Your task to perform on an android device: Go to privacy settings Image 0: 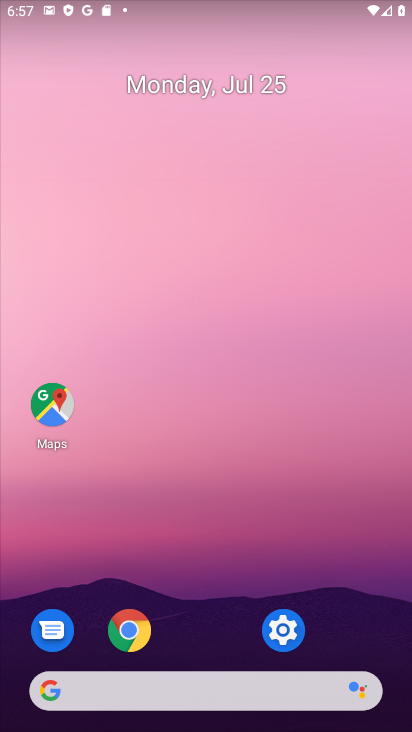
Step 0: drag from (354, 199) to (207, 168)
Your task to perform on an android device: Go to privacy settings Image 1: 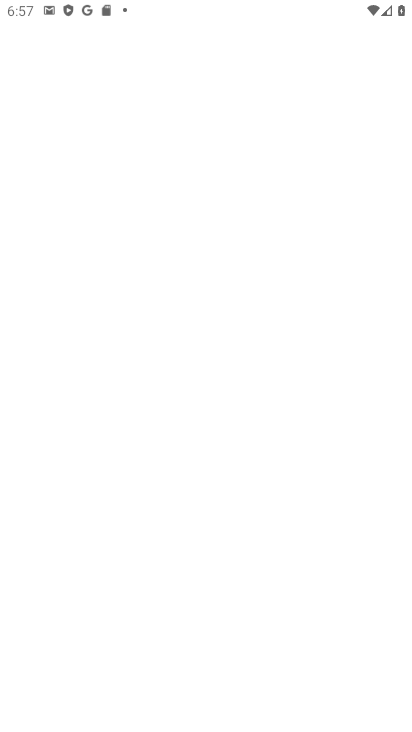
Step 1: press home button
Your task to perform on an android device: Go to privacy settings Image 2: 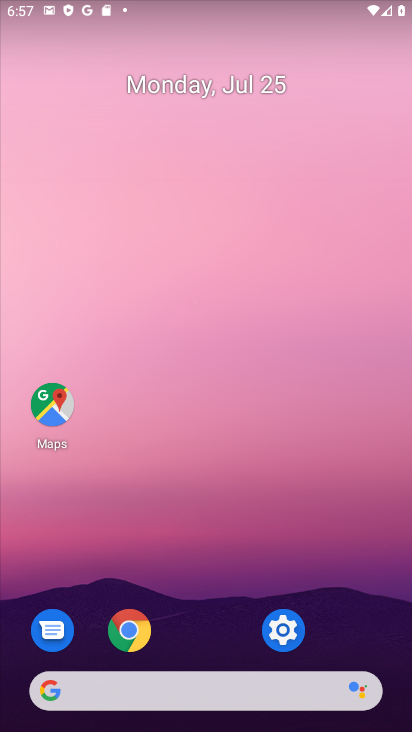
Step 2: drag from (279, 718) to (368, 46)
Your task to perform on an android device: Go to privacy settings Image 3: 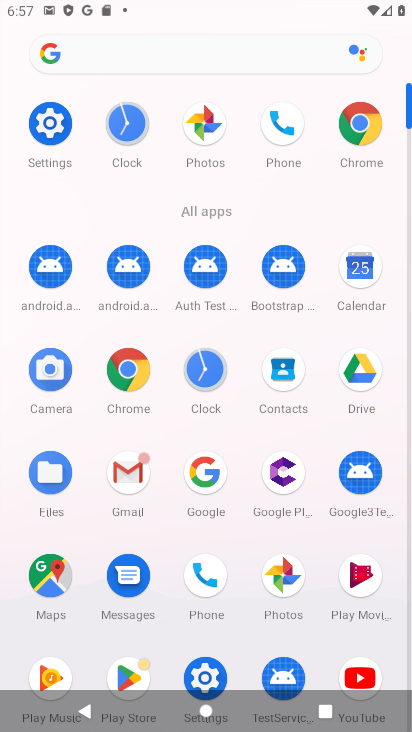
Step 3: drag from (131, 460) to (361, 653)
Your task to perform on an android device: Go to privacy settings Image 4: 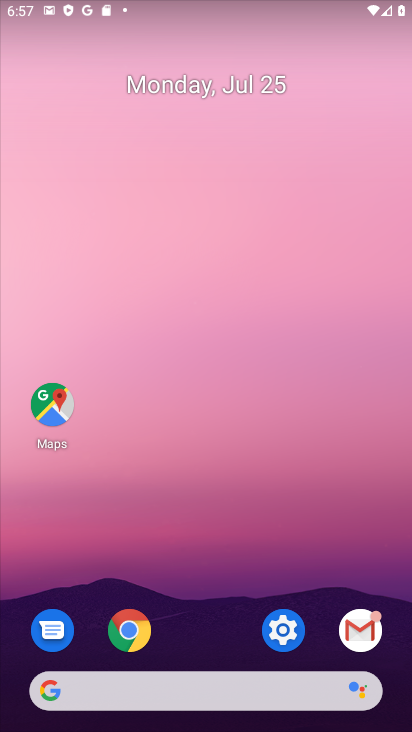
Step 4: click (360, 624)
Your task to perform on an android device: Go to privacy settings Image 5: 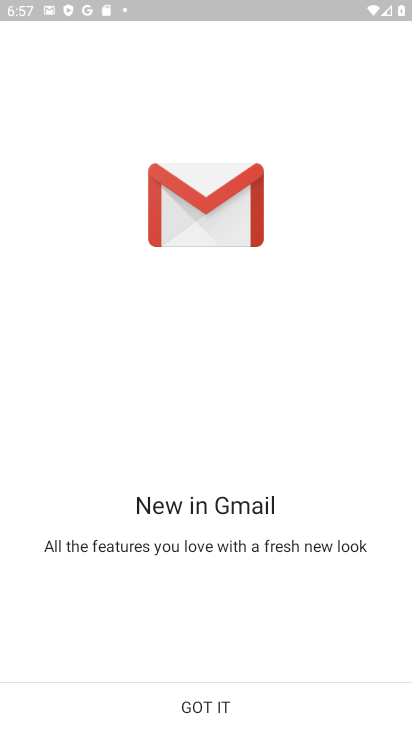
Step 5: click (229, 707)
Your task to perform on an android device: Go to privacy settings Image 6: 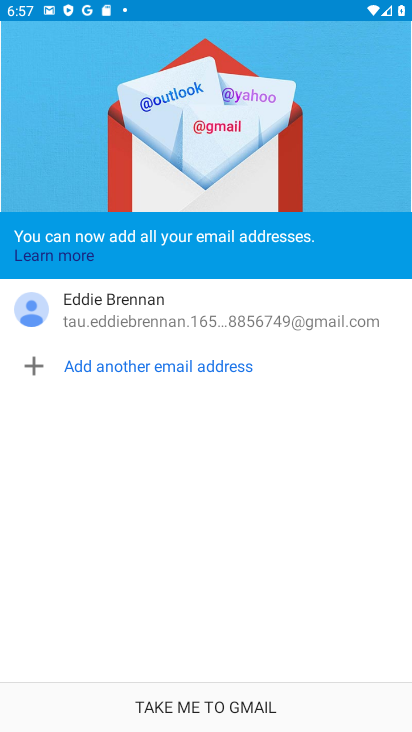
Step 6: click (228, 696)
Your task to perform on an android device: Go to privacy settings Image 7: 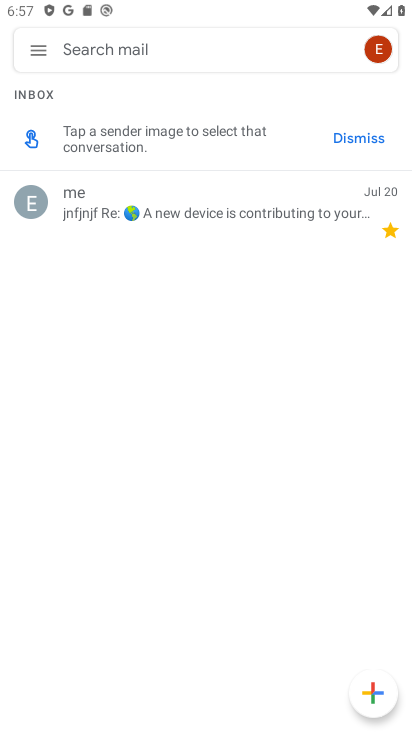
Step 7: click (351, 141)
Your task to perform on an android device: Go to privacy settings Image 8: 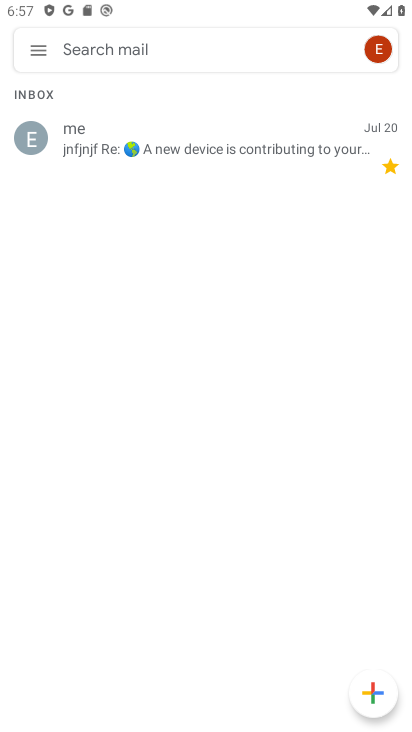
Step 8: press home button
Your task to perform on an android device: Go to privacy settings Image 9: 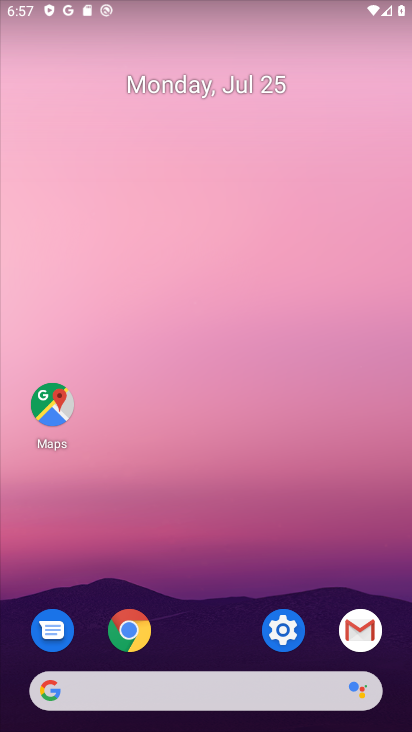
Step 9: click (277, 617)
Your task to perform on an android device: Go to privacy settings Image 10: 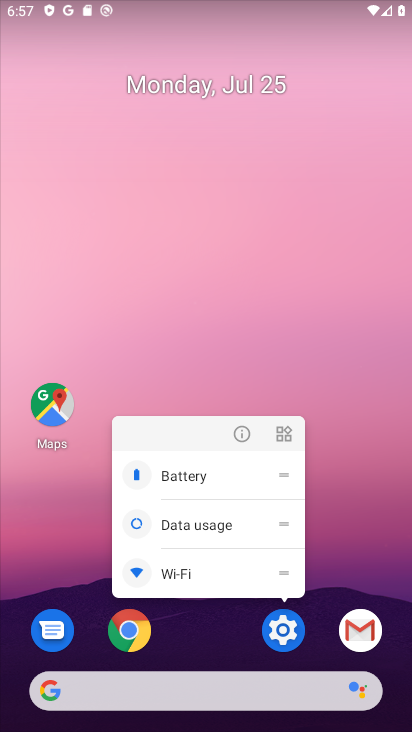
Step 10: click (288, 628)
Your task to perform on an android device: Go to privacy settings Image 11: 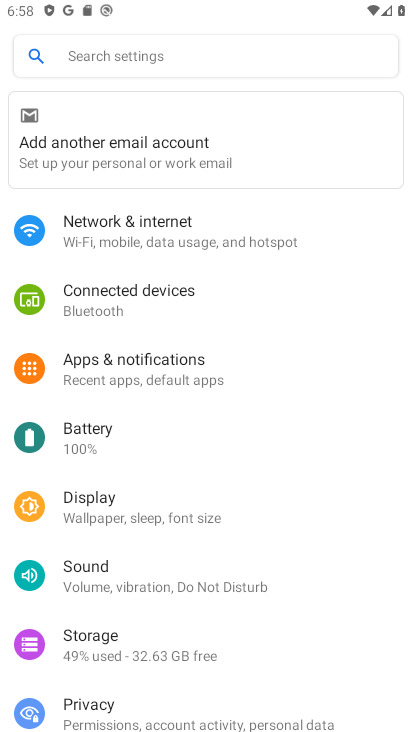
Step 11: click (97, 708)
Your task to perform on an android device: Go to privacy settings Image 12: 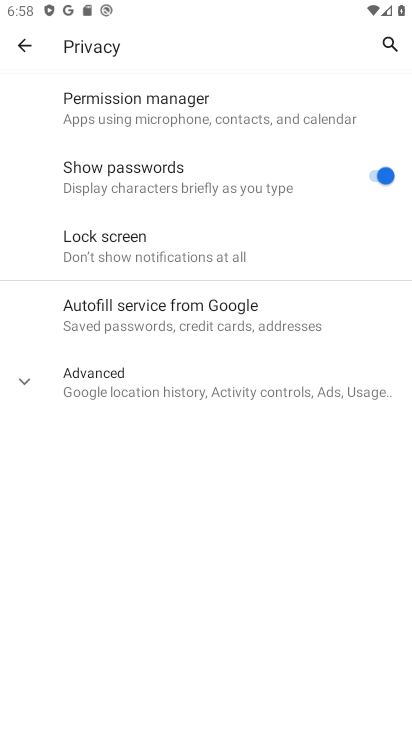
Step 12: click (91, 382)
Your task to perform on an android device: Go to privacy settings Image 13: 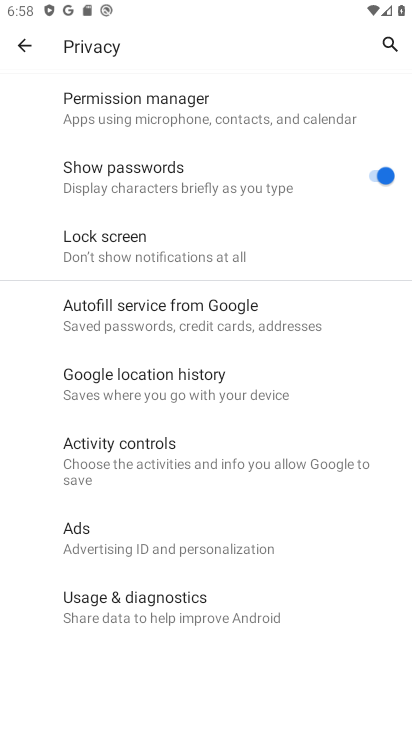
Step 13: task complete